Your task to perform on an android device: check android version Image 0: 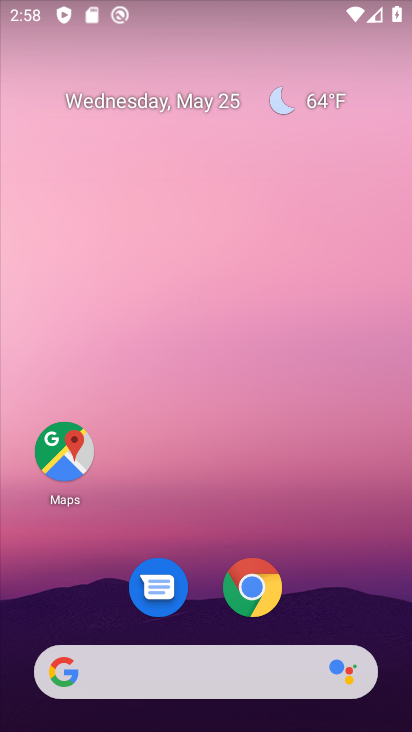
Step 0: drag from (323, 629) to (283, 141)
Your task to perform on an android device: check android version Image 1: 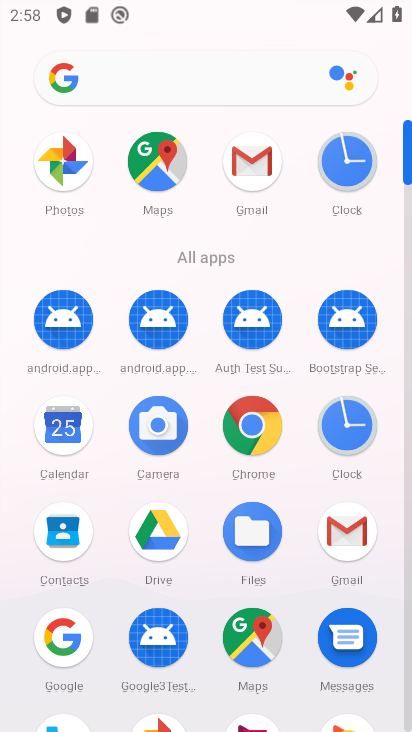
Step 1: click (406, 643)
Your task to perform on an android device: check android version Image 2: 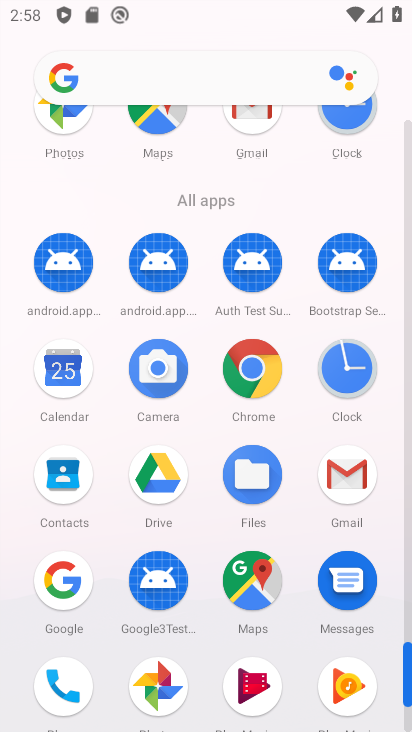
Step 2: drag from (395, 594) to (389, 430)
Your task to perform on an android device: check android version Image 3: 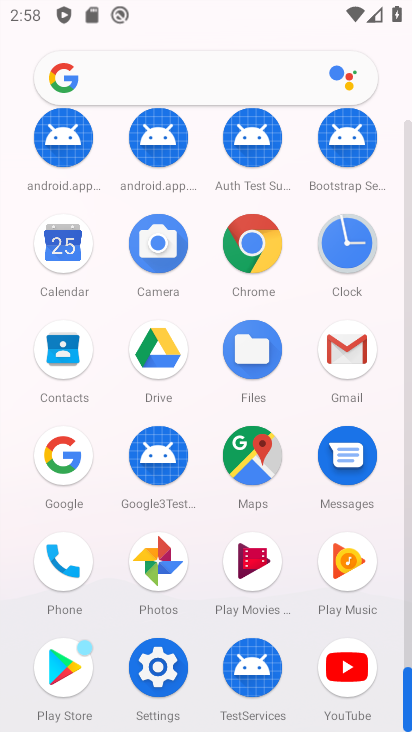
Step 3: click (166, 661)
Your task to perform on an android device: check android version Image 4: 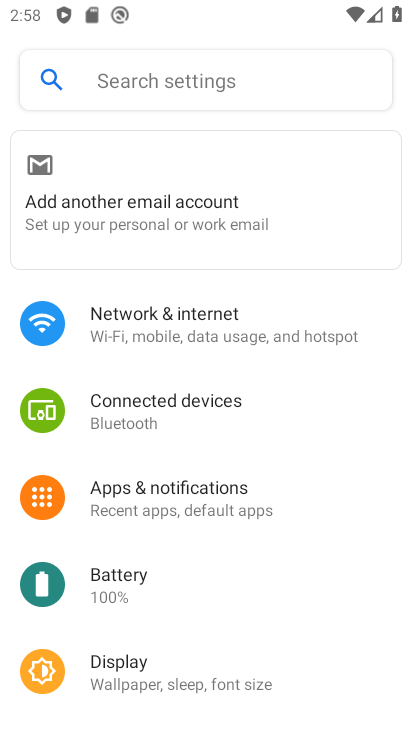
Step 4: task complete